Your task to perform on an android device: Go to Wikipedia Image 0: 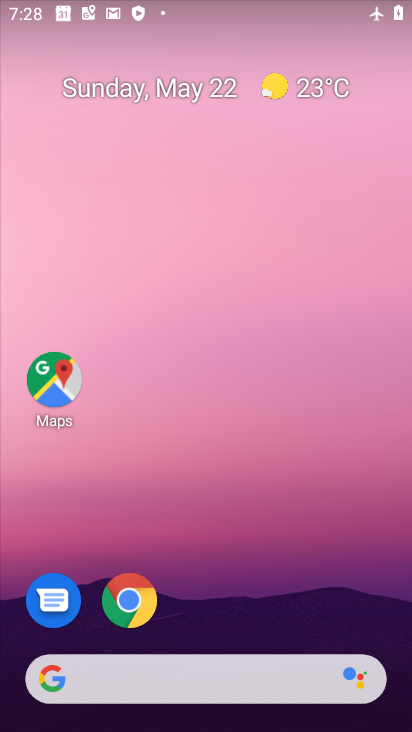
Step 0: drag from (358, 620) to (260, 4)
Your task to perform on an android device: Go to Wikipedia Image 1: 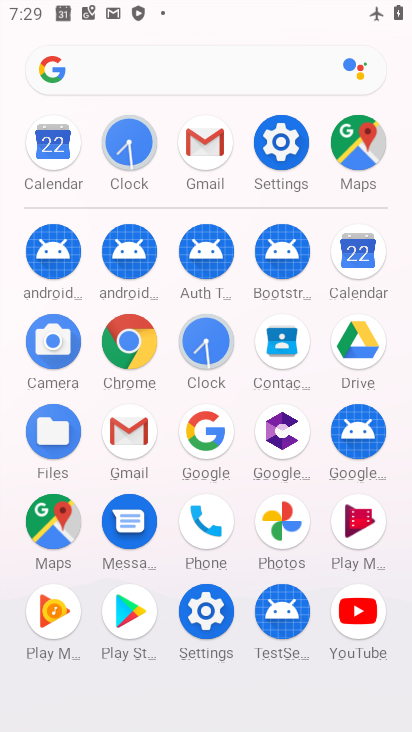
Step 1: click (133, 349)
Your task to perform on an android device: Go to Wikipedia Image 2: 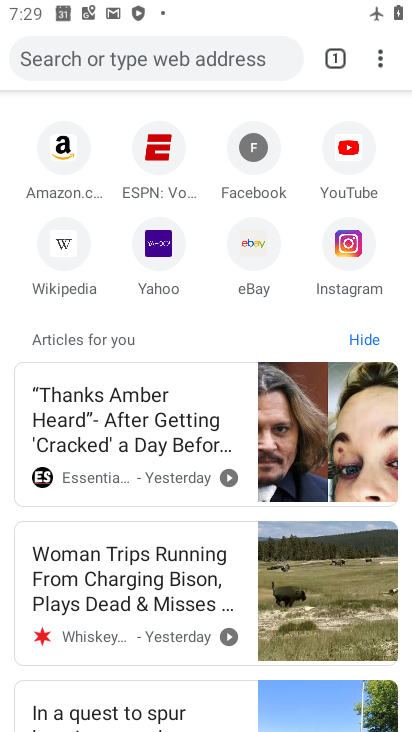
Step 2: click (66, 270)
Your task to perform on an android device: Go to Wikipedia Image 3: 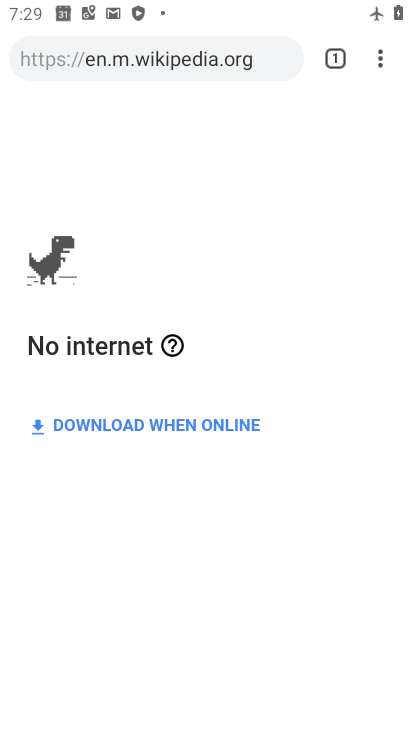
Step 3: task complete